Your task to perform on an android device: Go to Google Image 0: 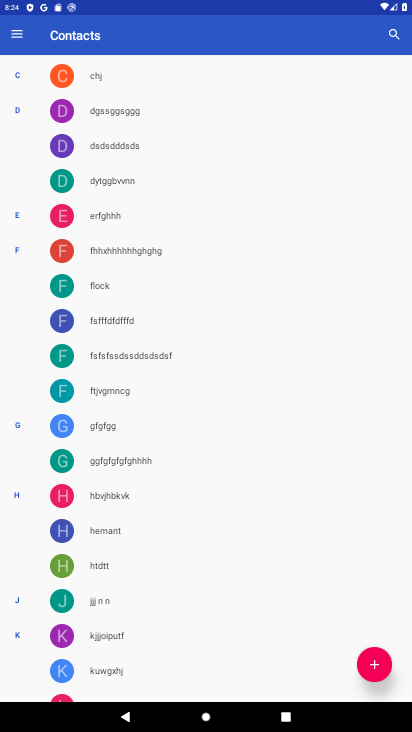
Step 0: press home button
Your task to perform on an android device: Go to Google Image 1: 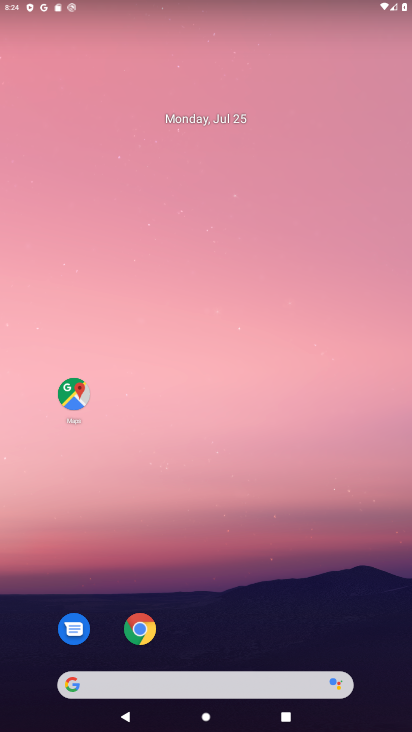
Step 1: drag from (225, 630) to (273, 10)
Your task to perform on an android device: Go to Google Image 2: 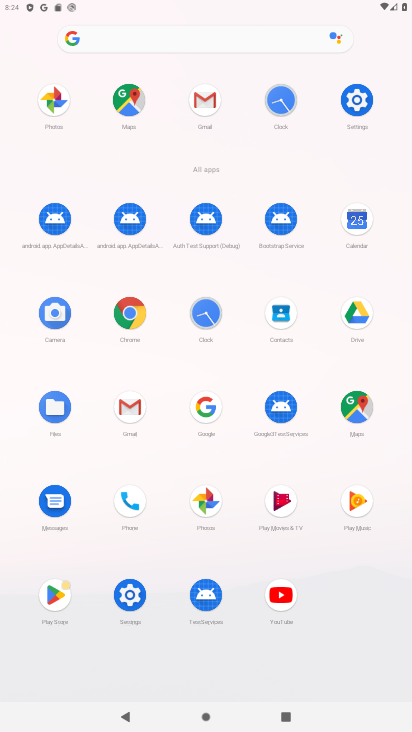
Step 2: click (205, 416)
Your task to perform on an android device: Go to Google Image 3: 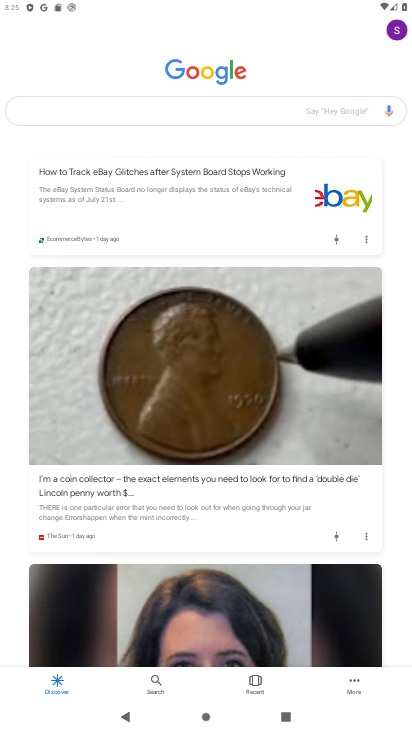
Step 3: task complete